Your task to perform on an android device: check out phone information Image 0: 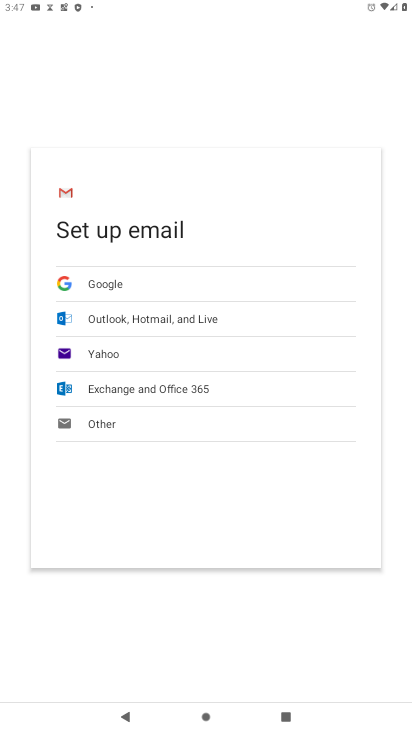
Step 0: press home button
Your task to perform on an android device: check out phone information Image 1: 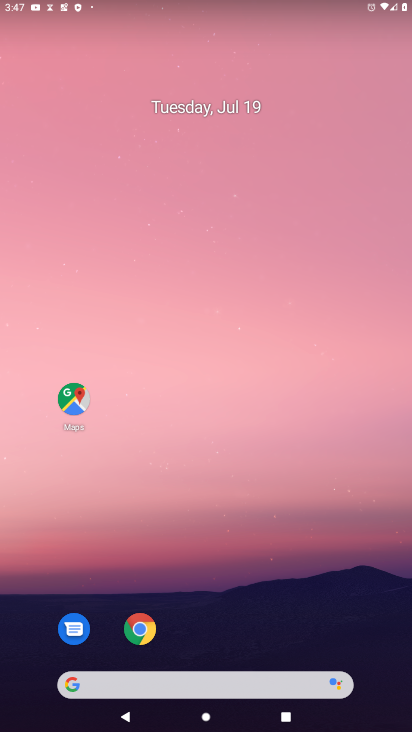
Step 1: drag from (220, 682) to (210, 422)
Your task to perform on an android device: check out phone information Image 2: 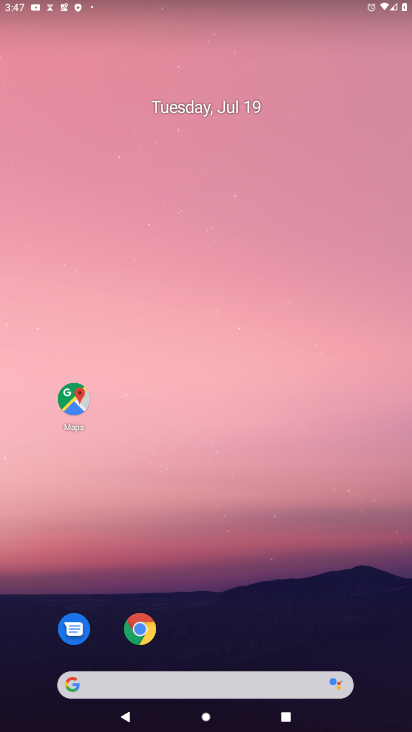
Step 2: drag from (138, 659) to (133, 272)
Your task to perform on an android device: check out phone information Image 3: 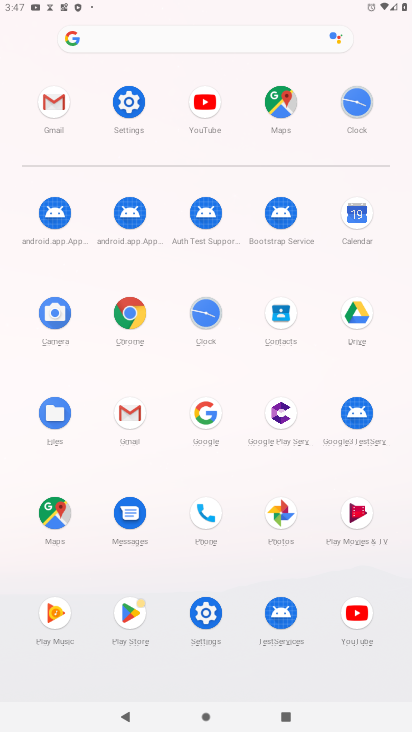
Step 3: click (199, 512)
Your task to perform on an android device: check out phone information Image 4: 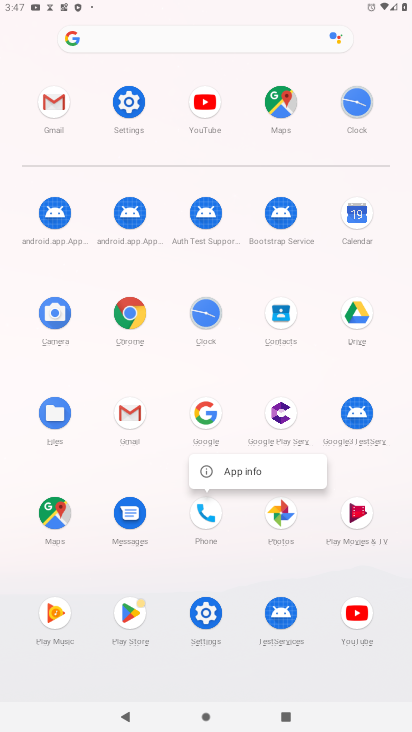
Step 4: click (245, 467)
Your task to perform on an android device: check out phone information Image 5: 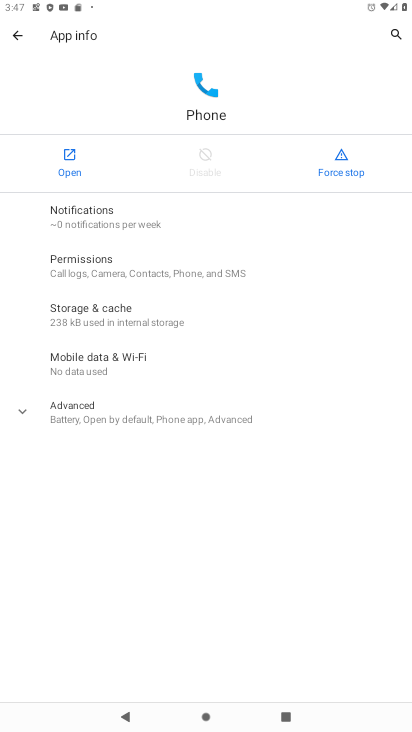
Step 5: click (84, 409)
Your task to perform on an android device: check out phone information Image 6: 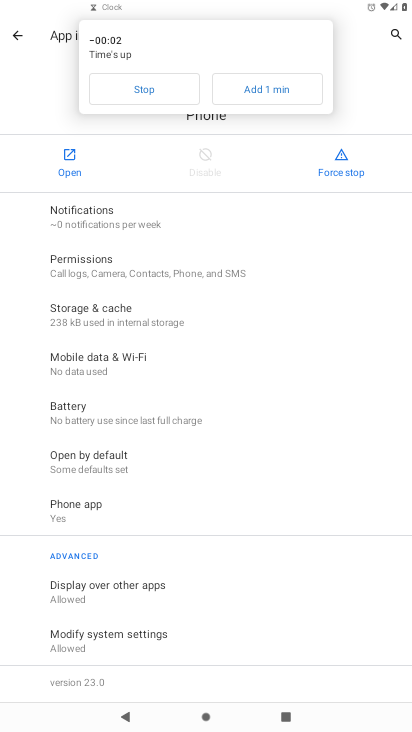
Step 6: task complete